Your task to perform on an android device: Show me the alarms in the clock app Image 0: 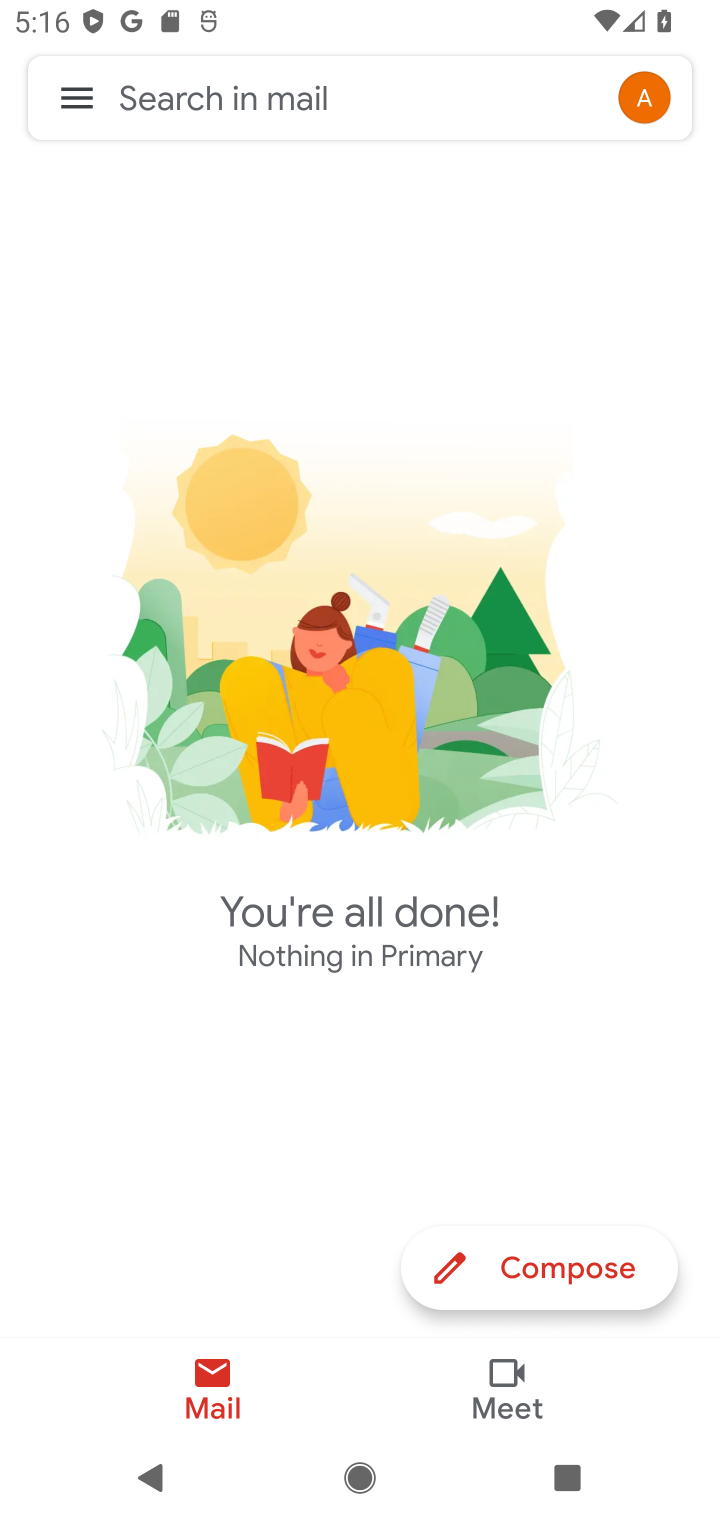
Step 0: press home button
Your task to perform on an android device: Show me the alarms in the clock app Image 1: 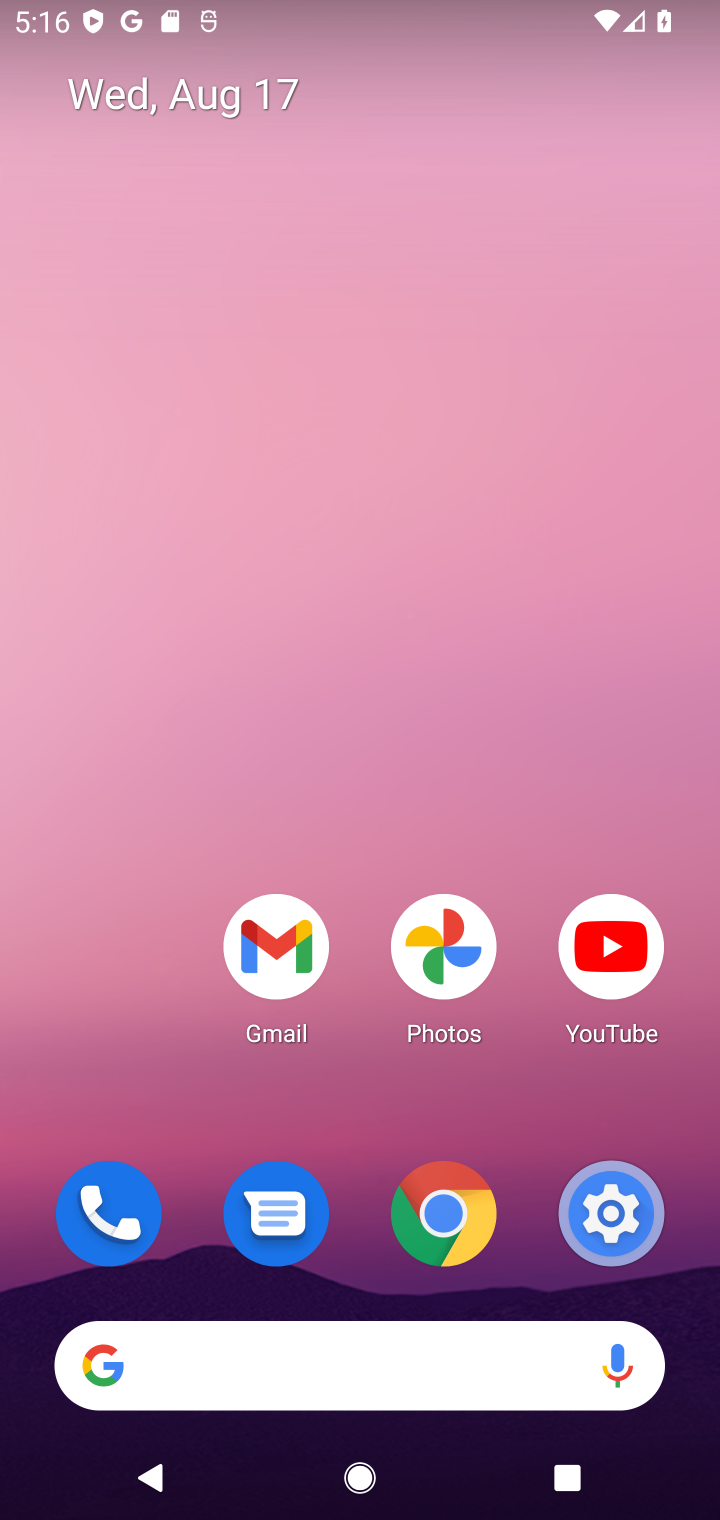
Step 1: drag from (358, 1141) to (391, 254)
Your task to perform on an android device: Show me the alarms in the clock app Image 2: 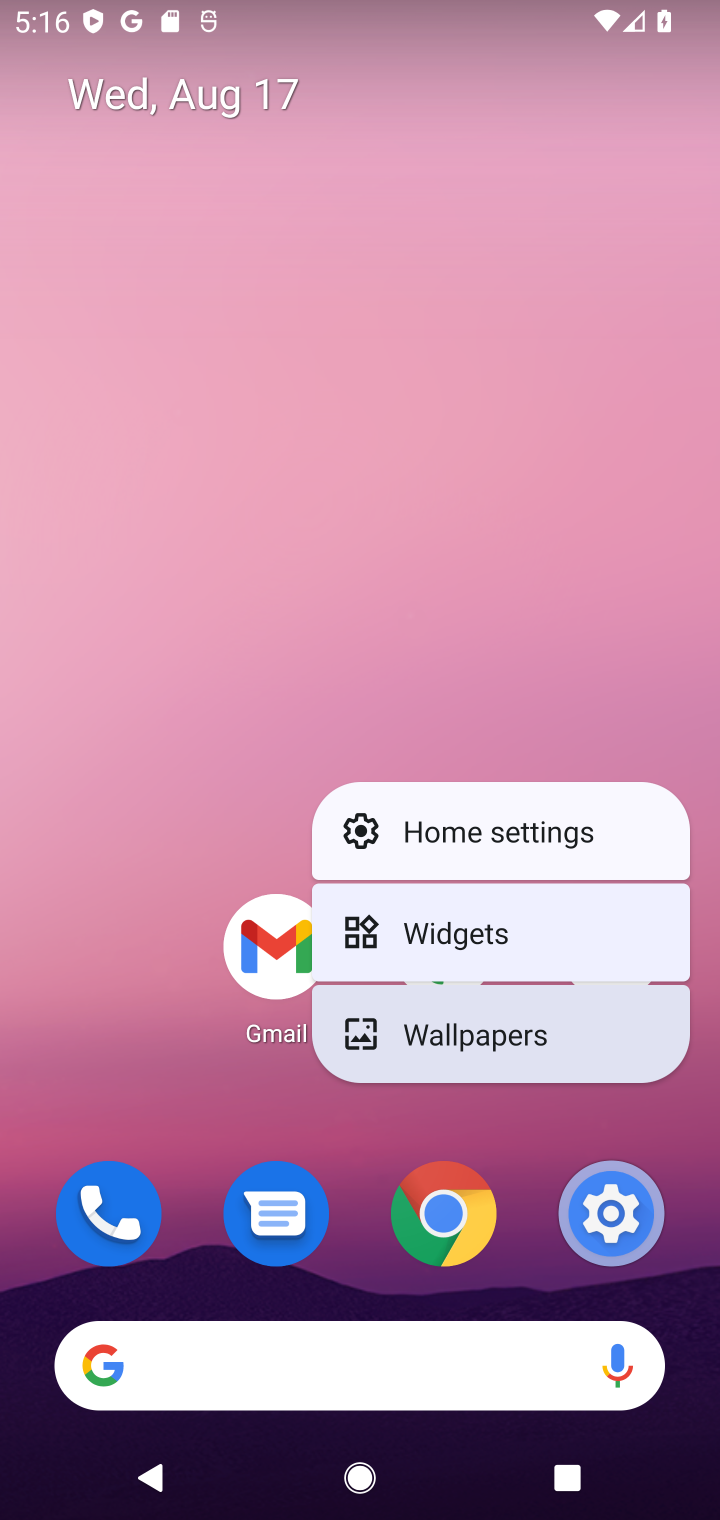
Step 2: click (478, 739)
Your task to perform on an android device: Show me the alarms in the clock app Image 3: 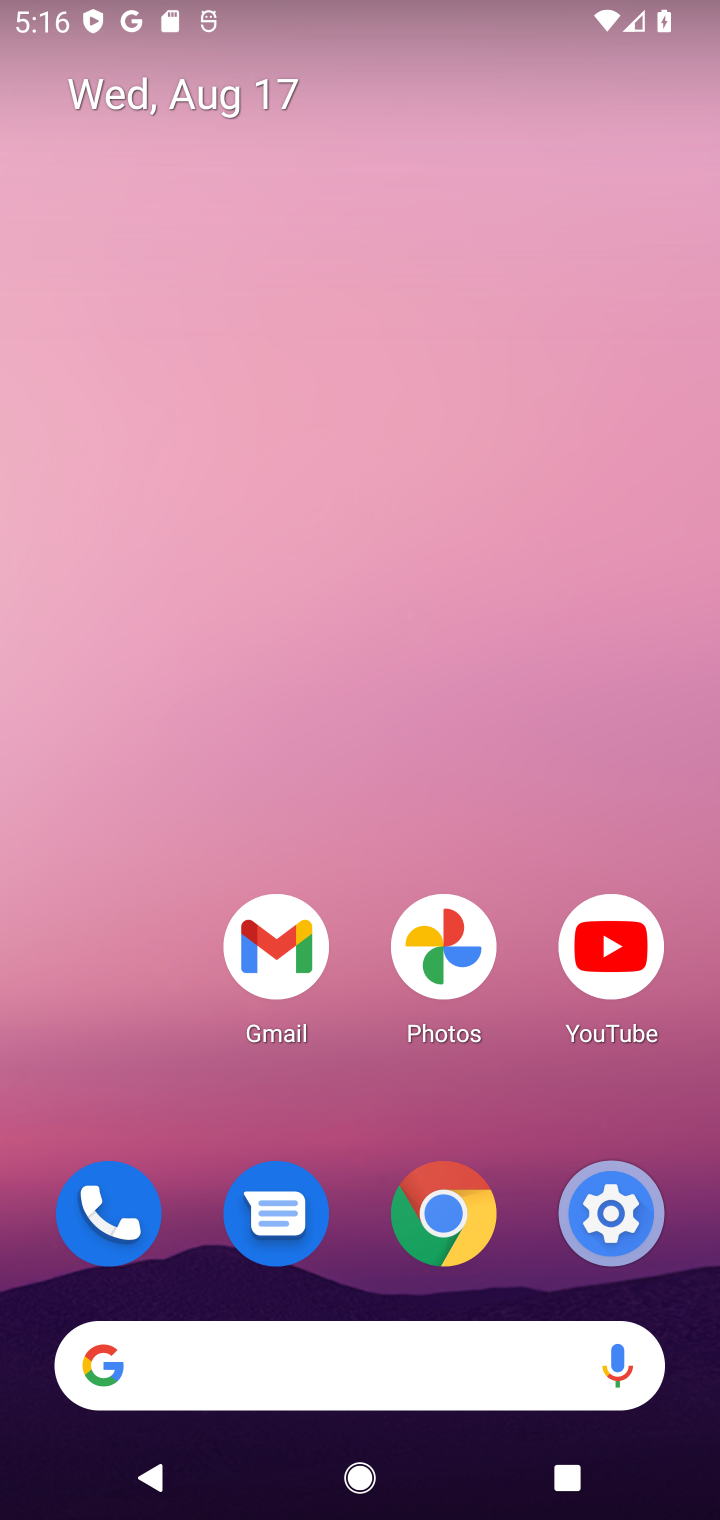
Step 3: drag from (326, 1127) to (396, 296)
Your task to perform on an android device: Show me the alarms in the clock app Image 4: 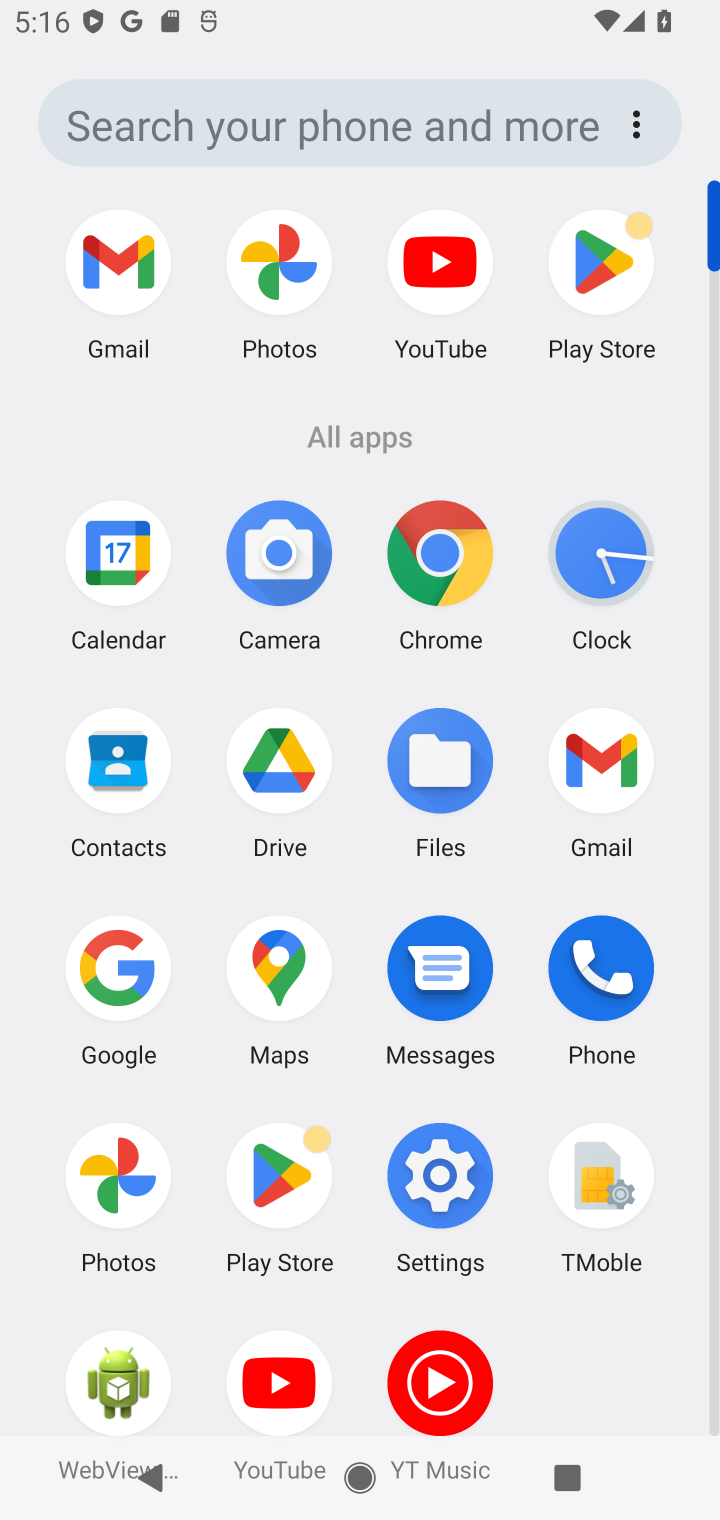
Step 4: click (610, 566)
Your task to perform on an android device: Show me the alarms in the clock app Image 5: 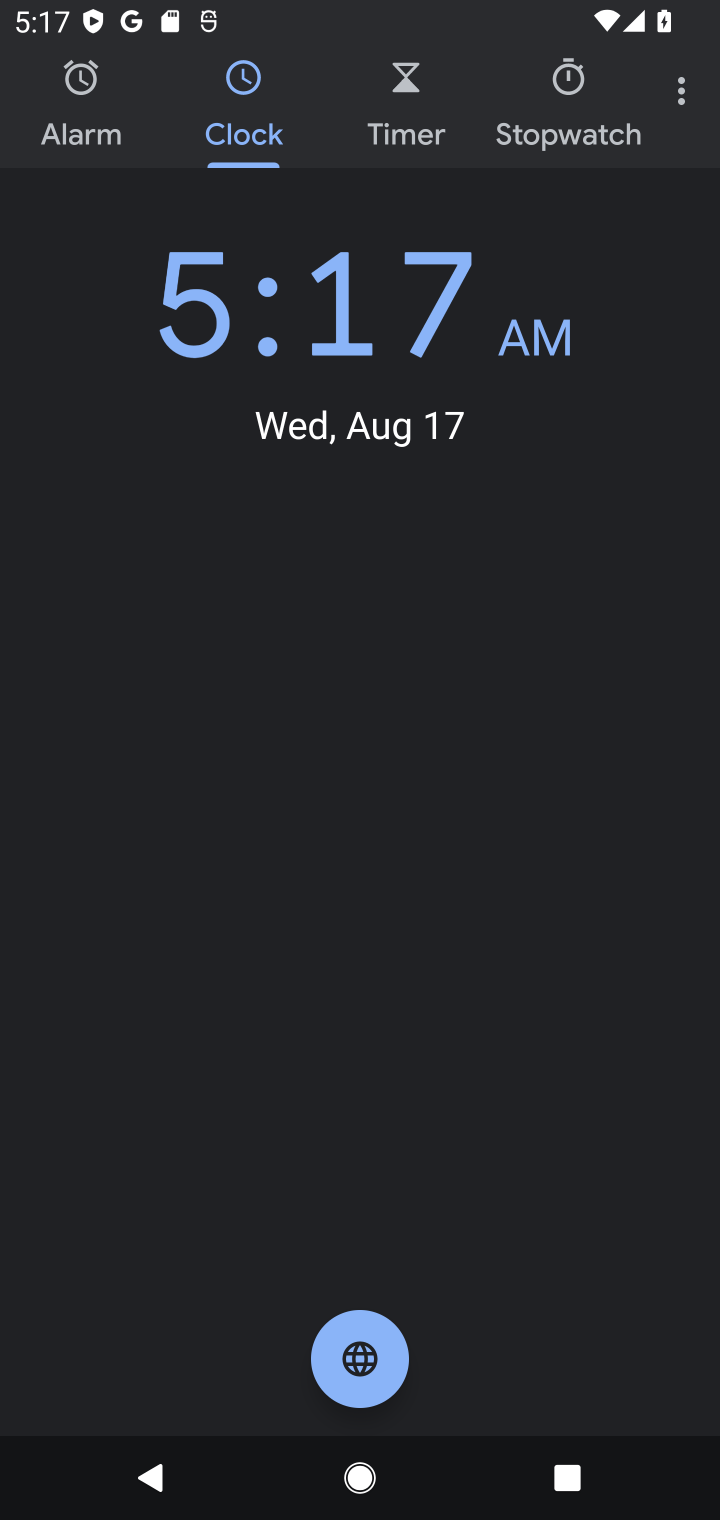
Step 5: click (69, 106)
Your task to perform on an android device: Show me the alarms in the clock app Image 6: 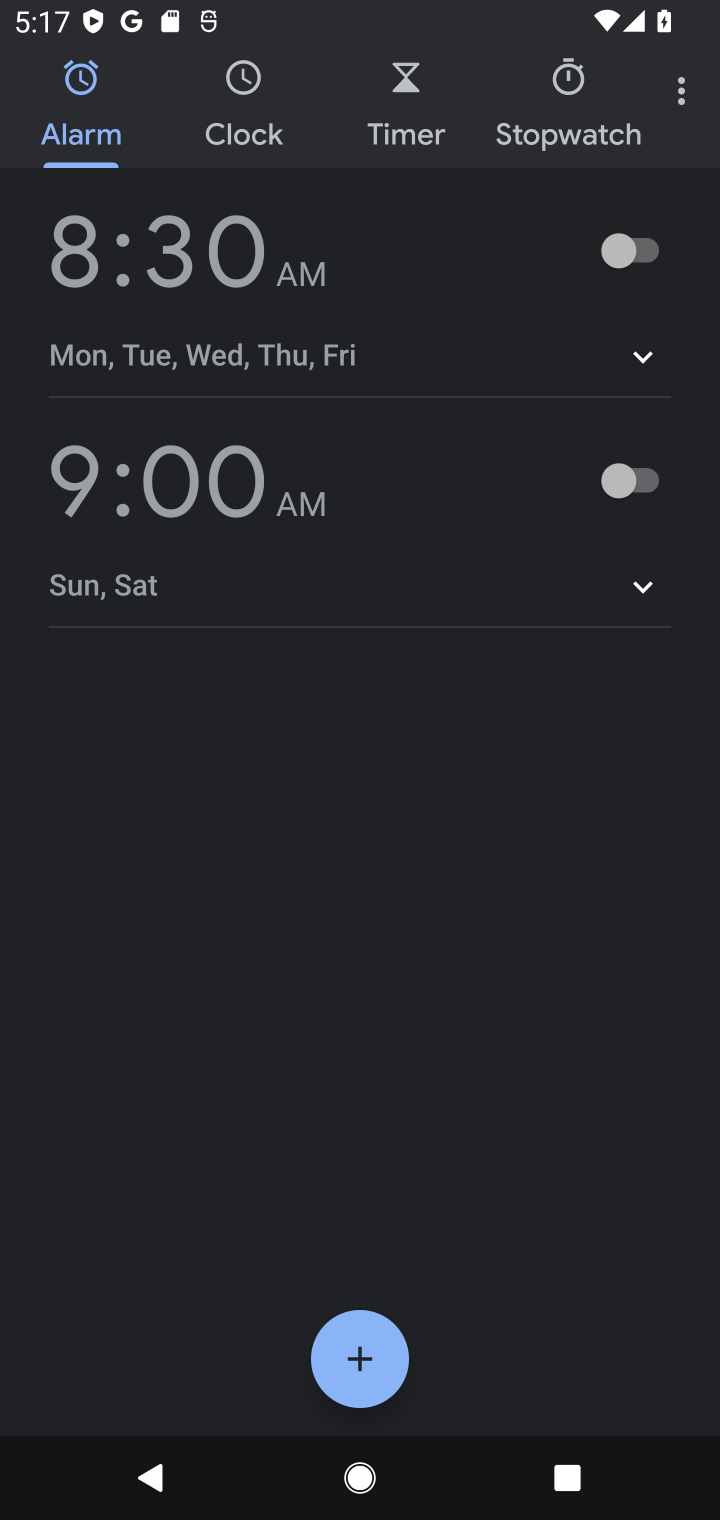
Step 6: task complete